Your task to perform on an android device: Go to Reddit.com Image 0: 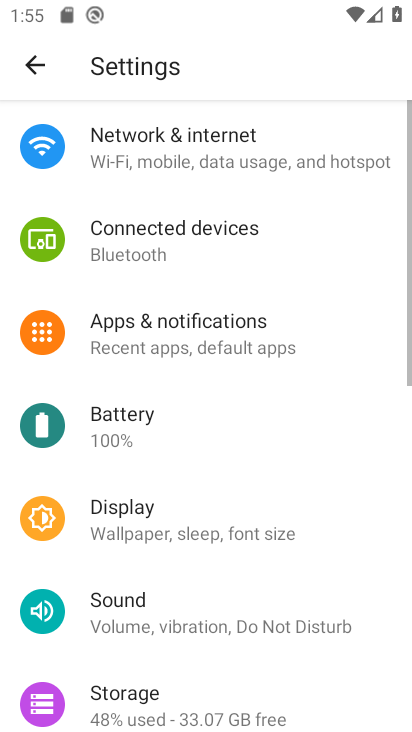
Step 0: press home button
Your task to perform on an android device: Go to Reddit.com Image 1: 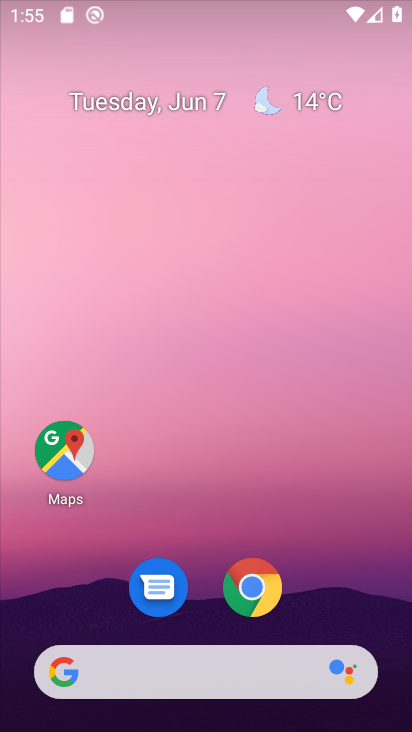
Step 1: click (239, 603)
Your task to perform on an android device: Go to Reddit.com Image 2: 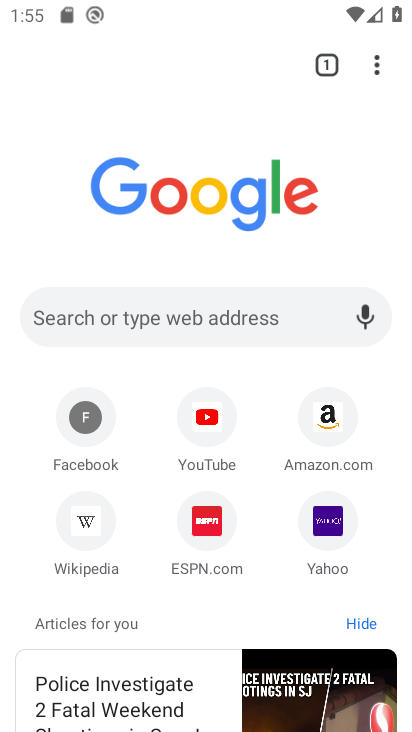
Step 2: click (268, 316)
Your task to perform on an android device: Go to Reddit.com Image 3: 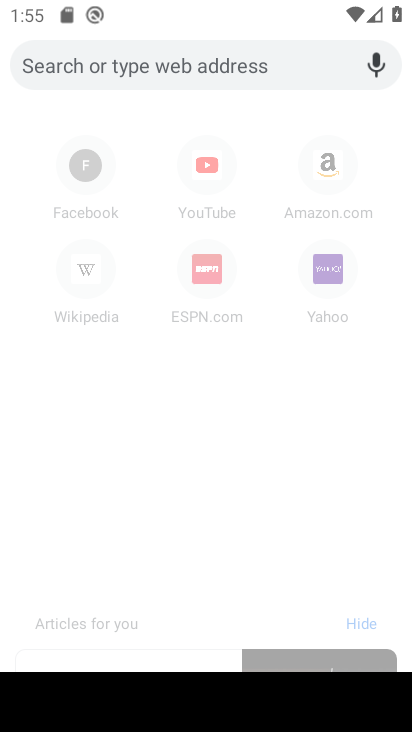
Step 3: type "reddit.com"
Your task to perform on an android device: Go to Reddit.com Image 4: 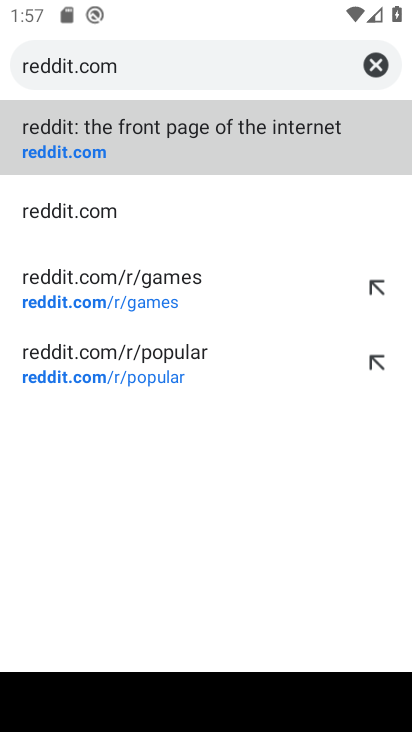
Step 4: click (307, 143)
Your task to perform on an android device: Go to Reddit.com Image 5: 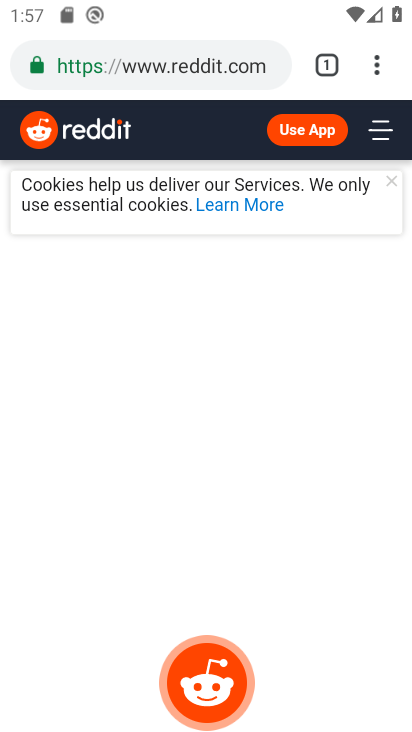
Step 5: task complete